Your task to perform on an android device: clear history in the chrome app Image 0: 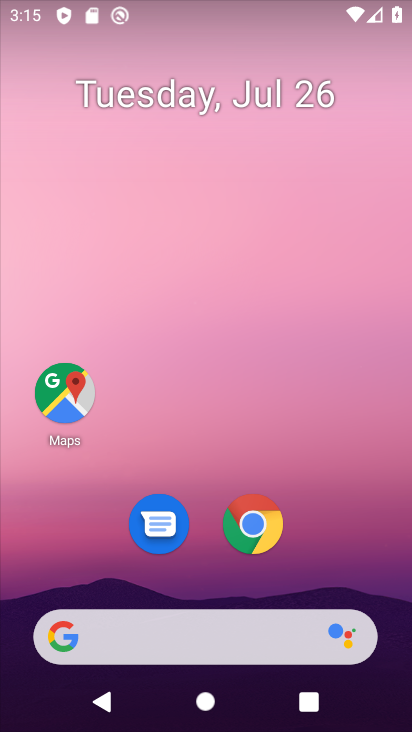
Step 0: click (266, 519)
Your task to perform on an android device: clear history in the chrome app Image 1: 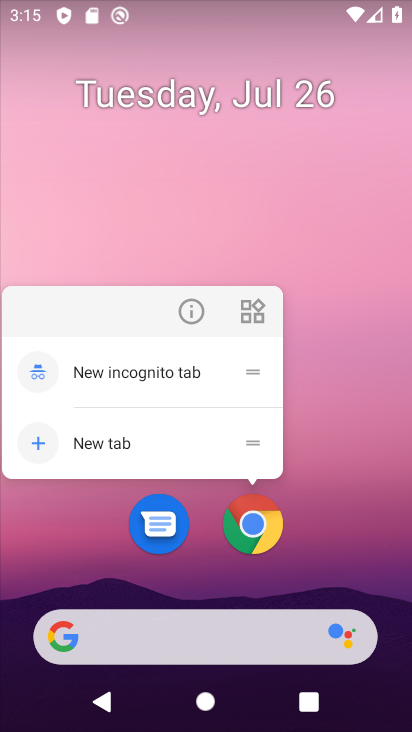
Step 1: click (266, 522)
Your task to perform on an android device: clear history in the chrome app Image 2: 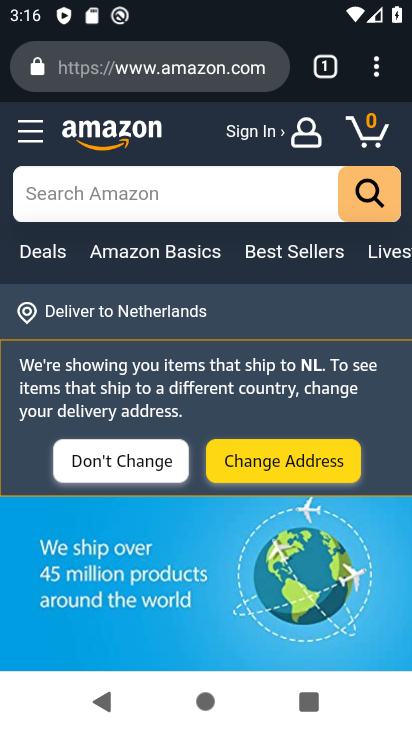
Step 2: click (375, 74)
Your task to perform on an android device: clear history in the chrome app Image 3: 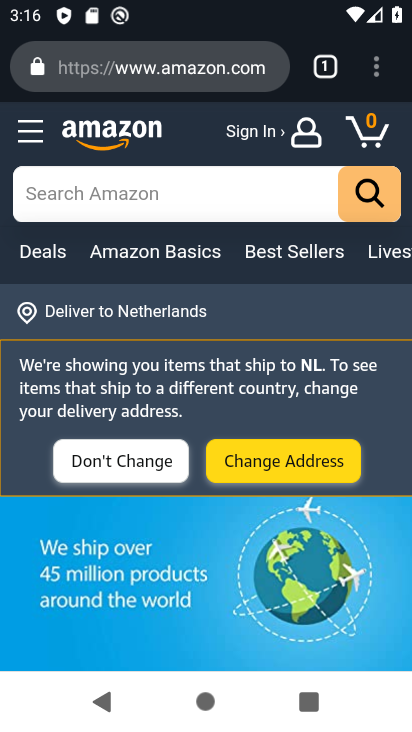
Step 3: click (375, 74)
Your task to perform on an android device: clear history in the chrome app Image 4: 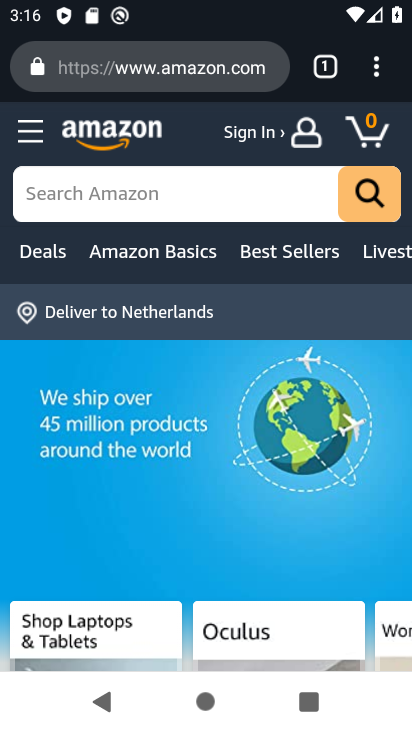
Step 4: click (375, 74)
Your task to perform on an android device: clear history in the chrome app Image 5: 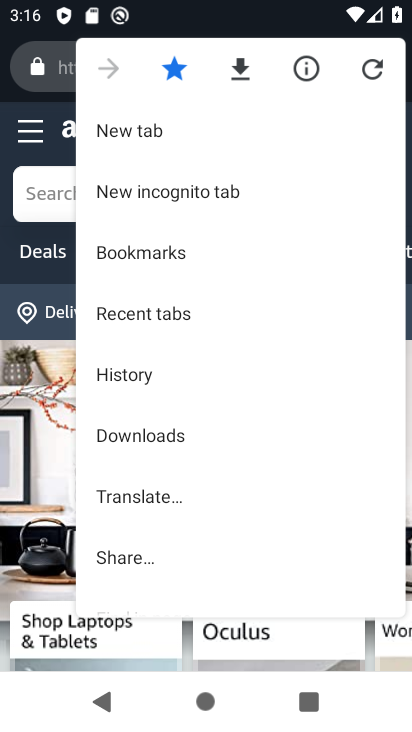
Step 5: click (153, 376)
Your task to perform on an android device: clear history in the chrome app Image 6: 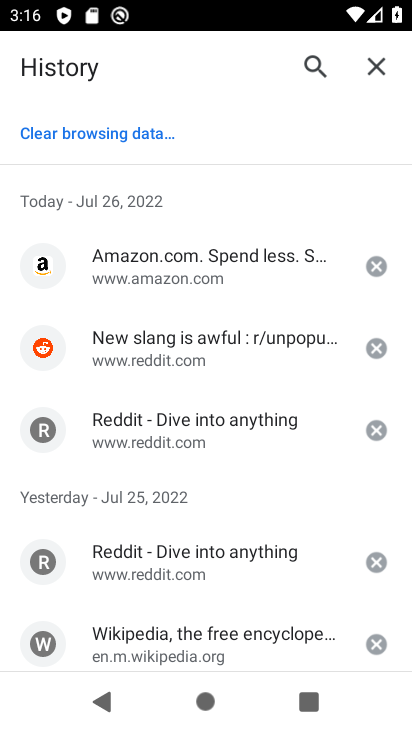
Step 6: click (163, 172)
Your task to perform on an android device: clear history in the chrome app Image 7: 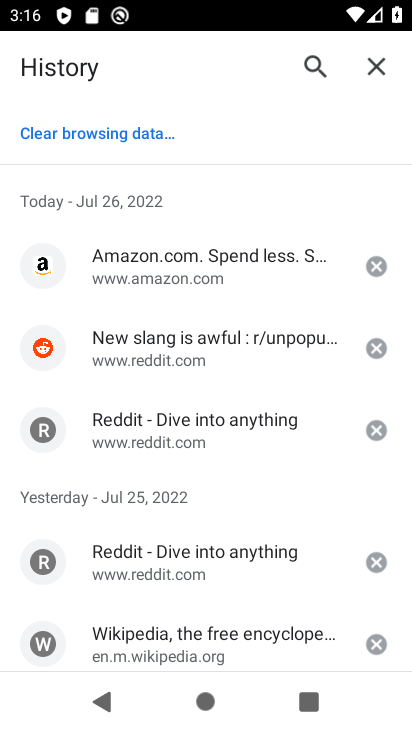
Step 7: click (163, 172)
Your task to perform on an android device: clear history in the chrome app Image 8: 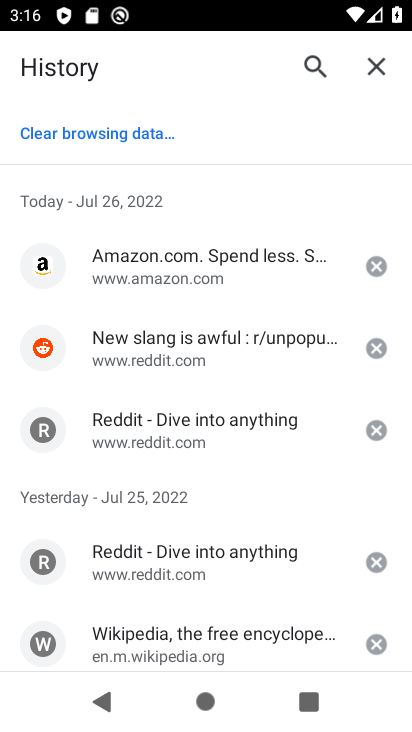
Step 8: click (131, 121)
Your task to perform on an android device: clear history in the chrome app Image 9: 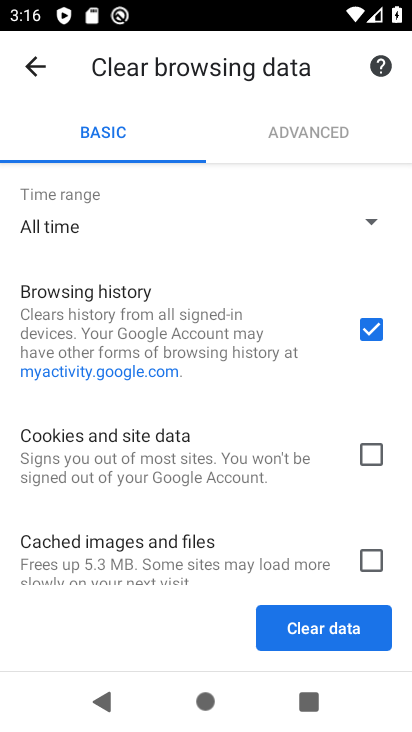
Step 9: click (326, 628)
Your task to perform on an android device: clear history in the chrome app Image 10: 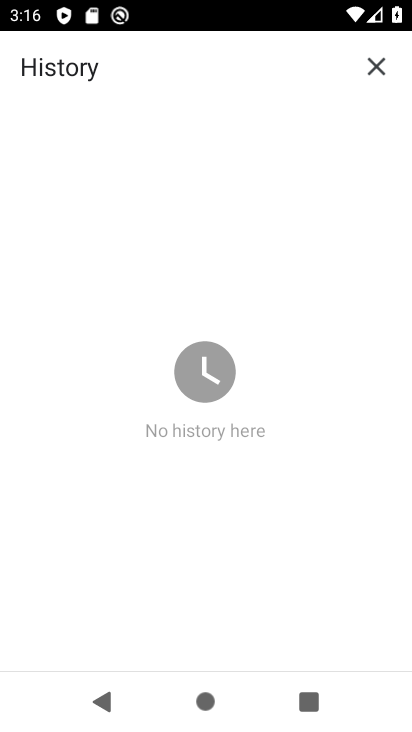
Step 10: task complete